Your task to perform on an android device: Search for sushi restaurants on Maps Image 0: 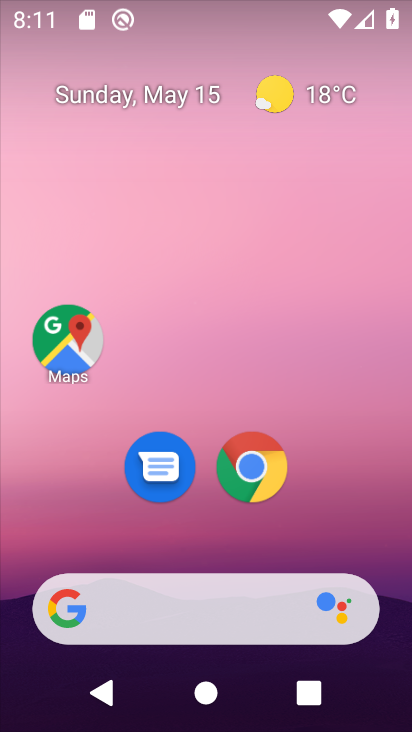
Step 0: click (53, 333)
Your task to perform on an android device: Search for sushi restaurants on Maps Image 1: 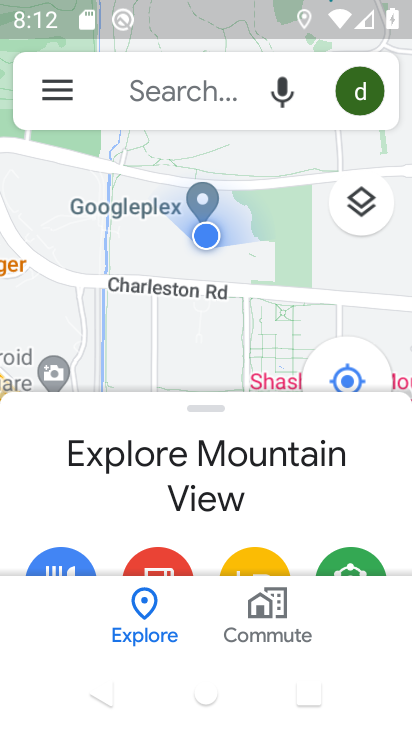
Step 1: click (137, 98)
Your task to perform on an android device: Search for sushi restaurants on Maps Image 2: 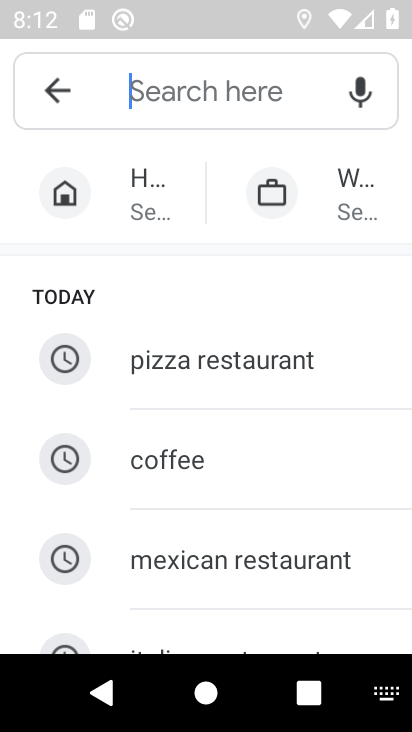
Step 2: type "sushi restaurant"
Your task to perform on an android device: Search for sushi restaurants on Maps Image 3: 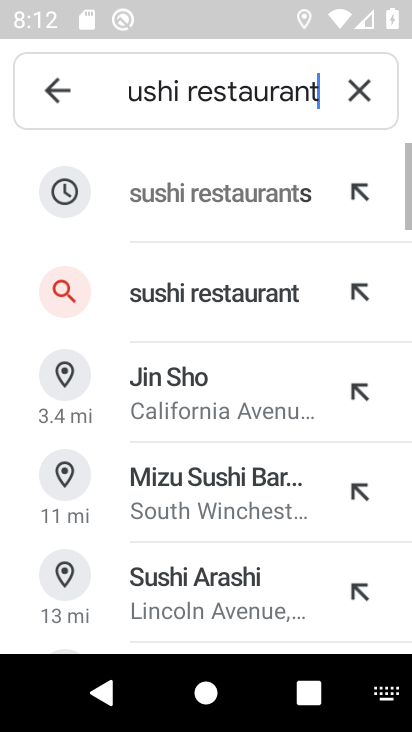
Step 3: click (123, 195)
Your task to perform on an android device: Search for sushi restaurants on Maps Image 4: 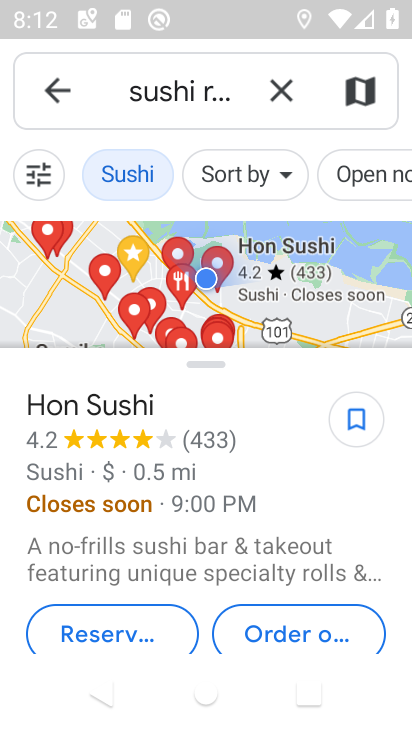
Step 4: task complete